Your task to perform on an android device: Open network settings Image 0: 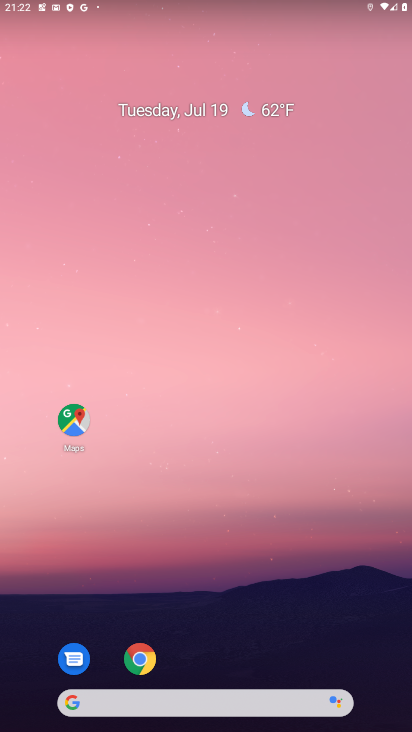
Step 0: press home button
Your task to perform on an android device: Open network settings Image 1: 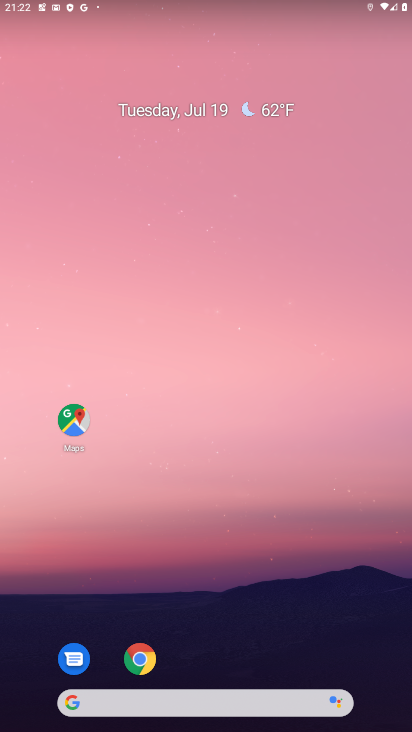
Step 1: drag from (282, 574) to (314, 310)
Your task to perform on an android device: Open network settings Image 2: 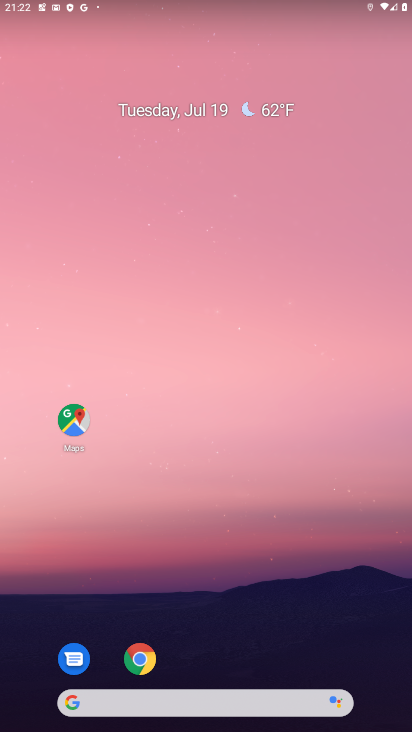
Step 2: drag from (323, 649) to (278, 21)
Your task to perform on an android device: Open network settings Image 3: 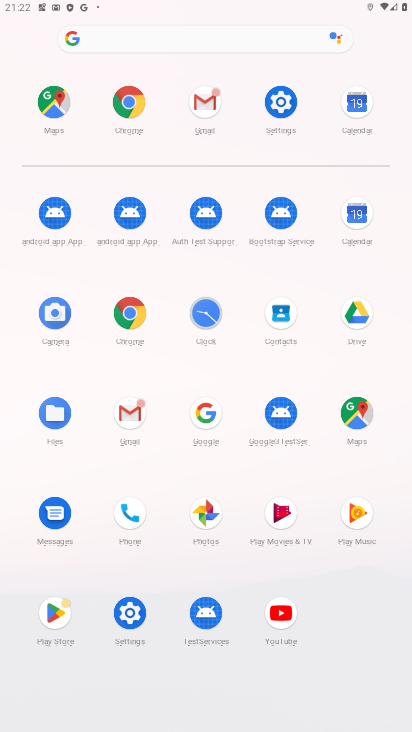
Step 3: click (124, 594)
Your task to perform on an android device: Open network settings Image 4: 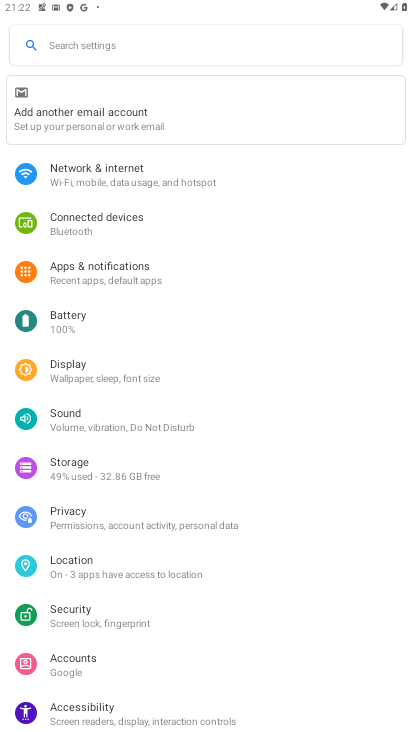
Step 4: click (135, 158)
Your task to perform on an android device: Open network settings Image 5: 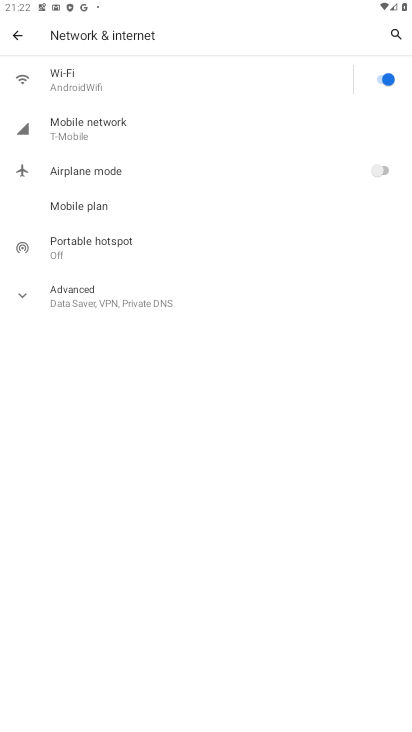
Step 5: task complete